Your task to perform on an android device: Go to Yahoo.com Image 0: 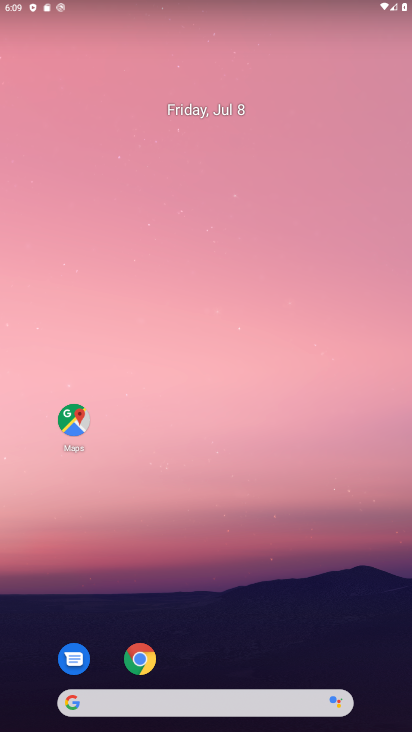
Step 0: drag from (238, 638) to (270, 7)
Your task to perform on an android device: Go to Yahoo.com Image 1: 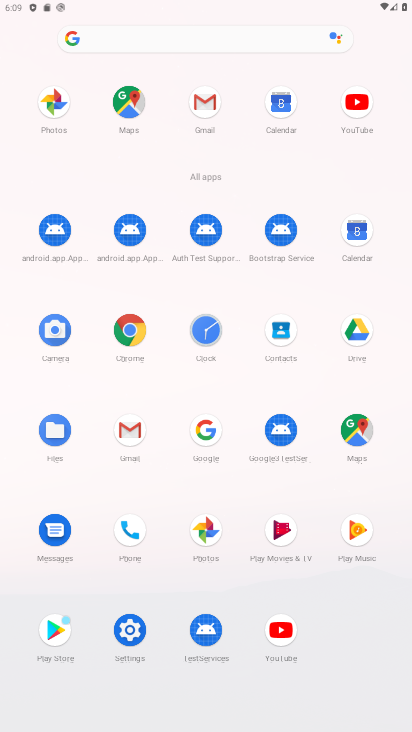
Step 1: click (114, 330)
Your task to perform on an android device: Go to Yahoo.com Image 2: 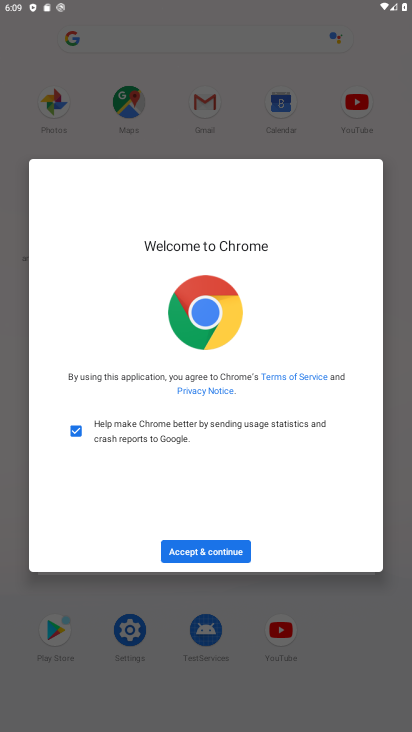
Step 2: click (205, 551)
Your task to perform on an android device: Go to Yahoo.com Image 3: 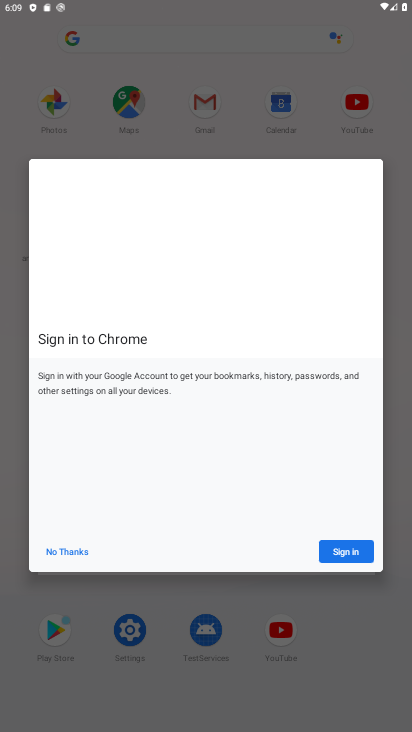
Step 3: click (90, 552)
Your task to perform on an android device: Go to Yahoo.com Image 4: 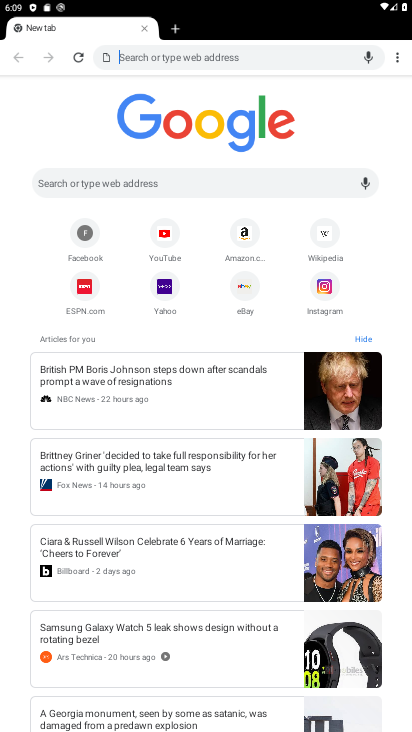
Step 4: click (162, 297)
Your task to perform on an android device: Go to Yahoo.com Image 5: 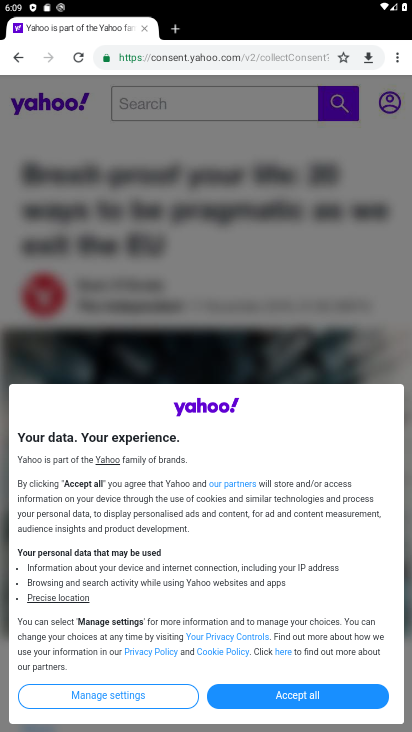
Step 5: task complete